Your task to perform on an android device: Open network settings Image 0: 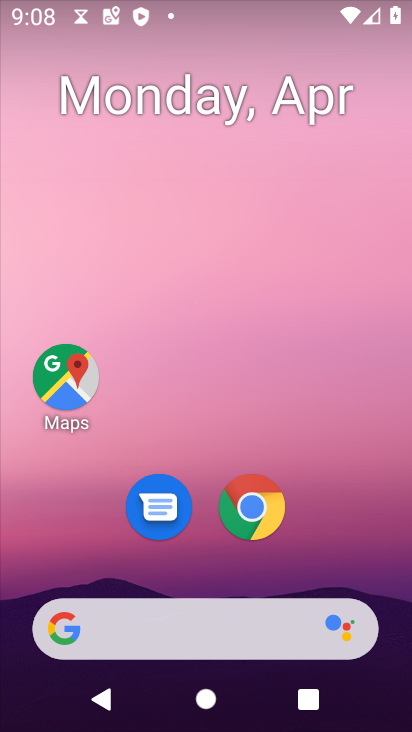
Step 0: drag from (299, 347) to (302, 81)
Your task to perform on an android device: Open network settings Image 1: 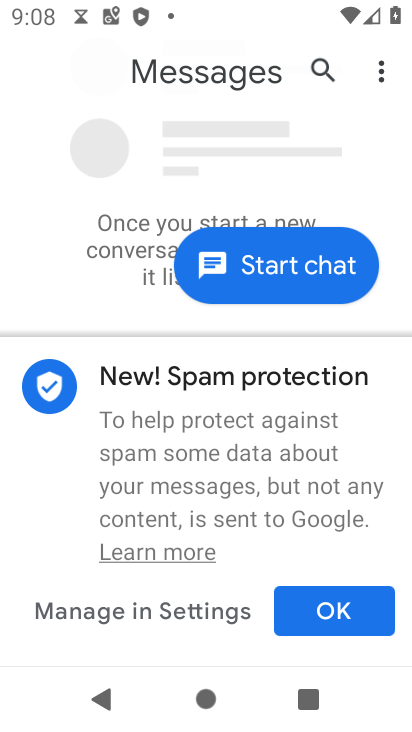
Step 1: press back button
Your task to perform on an android device: Open network settings Image 2: 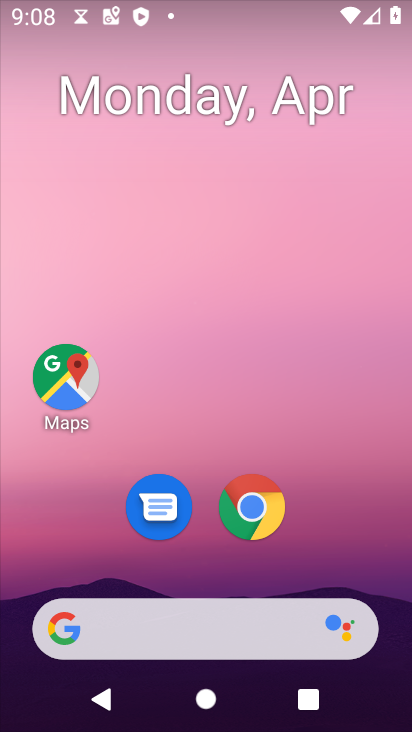
Step 2: drag from (319, 483) to (316, 64)
Your task to perform on an android device: Open network settings Image 3: 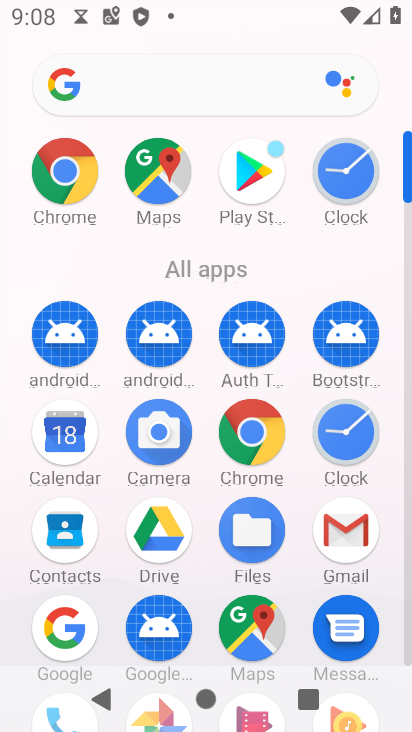
Step 3: drag from (204, 552) to (213, 262)
Your task to perform on an android device: Open network settings Image 4: 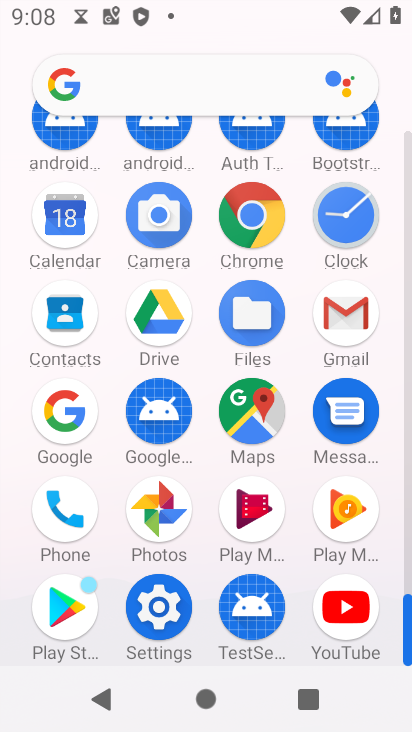
Step 4: click (170, 605)
Your task to perform on an android device: Open network settings Image 5: 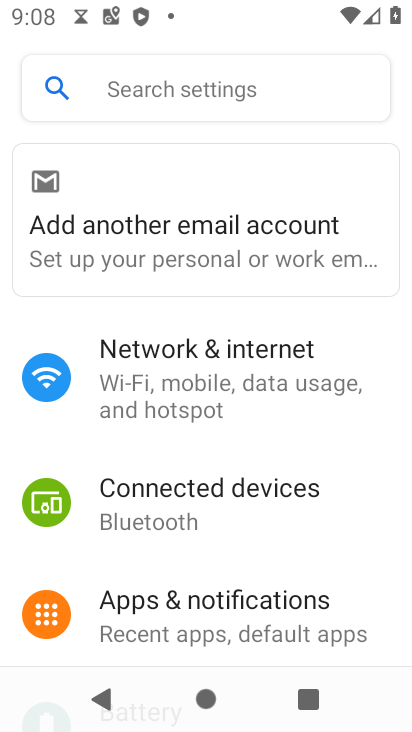
Step 5: click (204, 382)
Your task to perform on an android device: Open network settings Image 6: 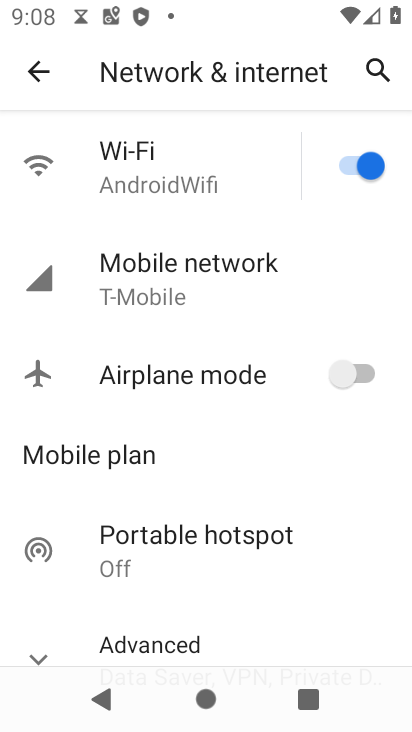
Step 6: click (228, 252)
Your task to perform on an android device: Open network settings Image 7: 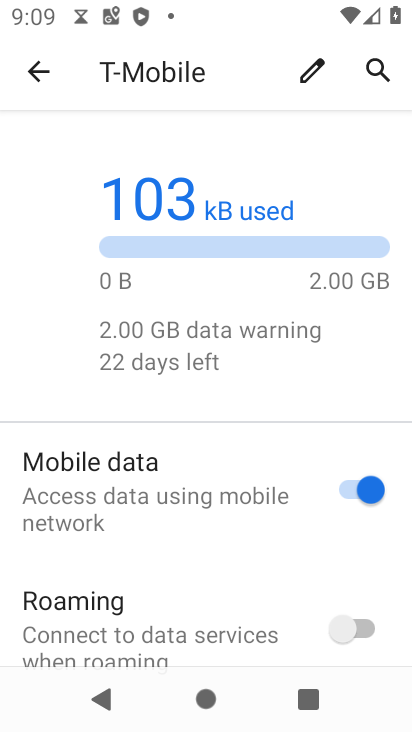
Step 7: task complete